Your task to perform on an android device: toggle notifications settings in the gmail app Image 0: 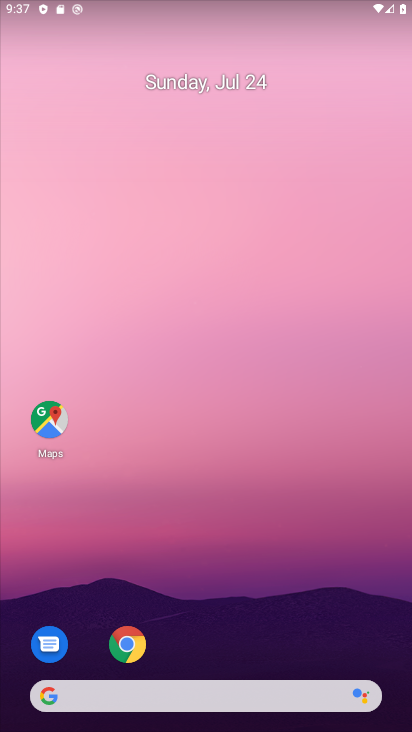
Step 0: drag from (199, 637) to (292, 48)
Your task to perform on an android device: toggle notifications settings in the gmail app Image 1: 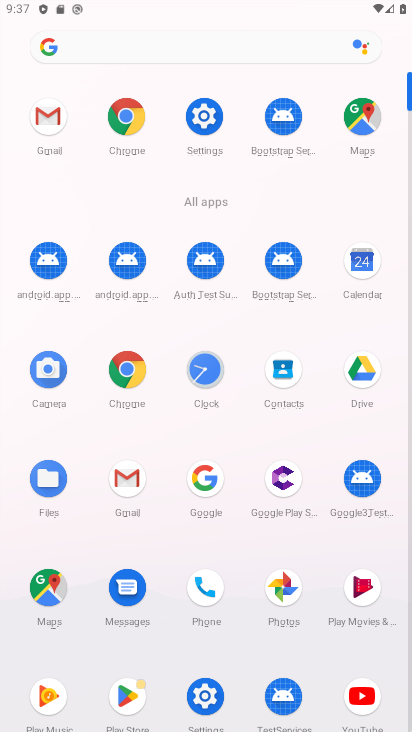
Step 1: drag from (302, 664) to (280, 626)
Your task to perform on an android device: toggle notifications settings in the gmail app Image 2: 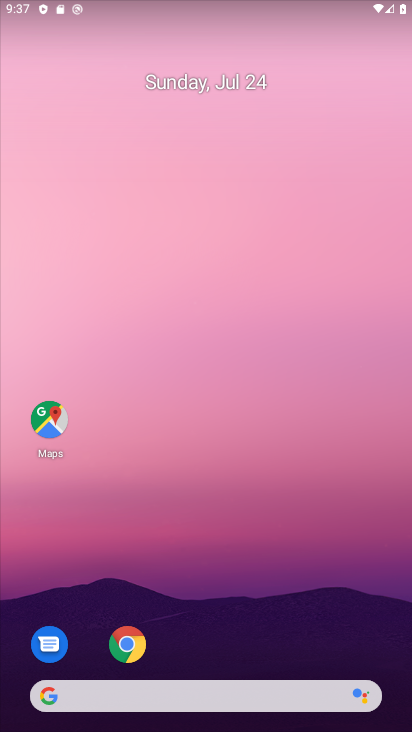
Step 2: click (49, 112)
Your task to perform on an android device: toggle notifications settings in the gmail app Image 3: 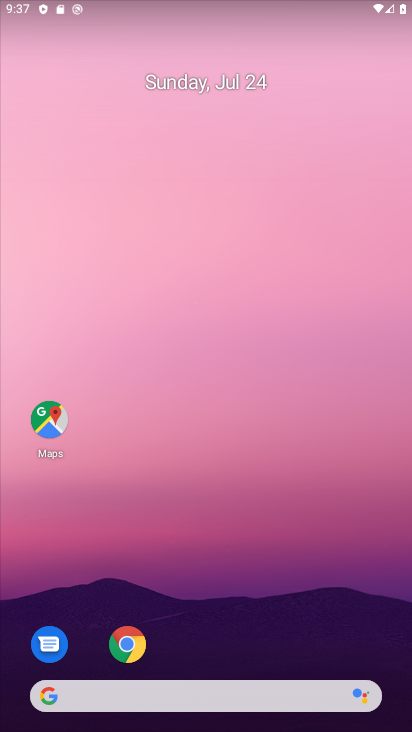
Step 3: drag from (166, 644) to (207, 5)
Your task to perform on an android device: toggle notifications settings in the gmail app Image 4: 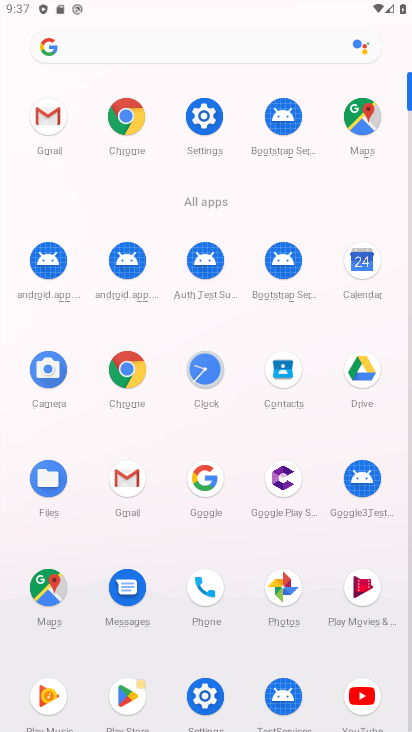
Step 4: click (51, 133)
Your task to perform on an android device: toggle notifications settings in the gmail app Image 5: 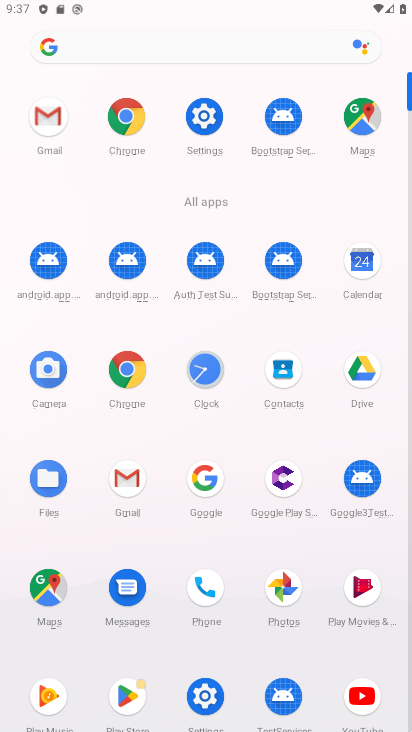
Step 5: click (51, 133)
Your task to perform on an android device: toggle notifications settings in the gmail app Image 6: 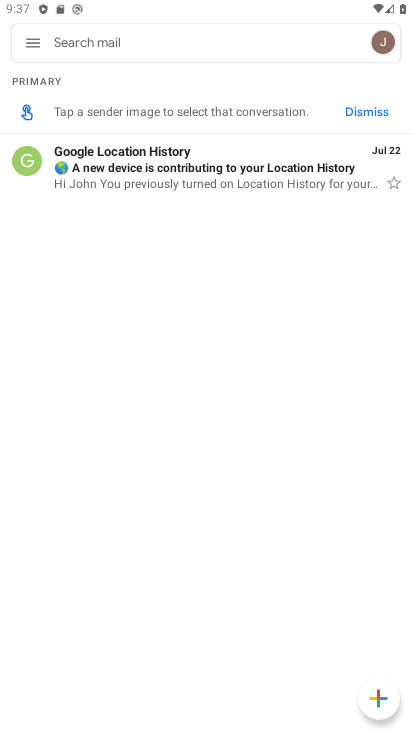
Step 6: click (33, 45)
Your task to perform on an android device: toggle notifications settings in the gmail app Image 7: 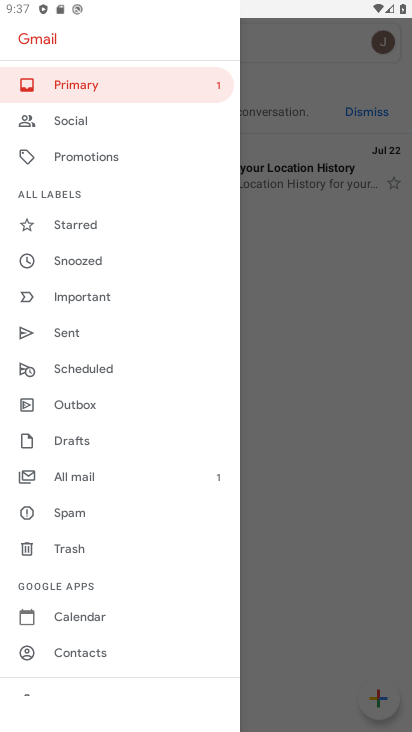
Step 7: drag from (66, 620) to (121, 89)
Your task to perform on an android device: toggle notifications settings in the gmail app Image 8: 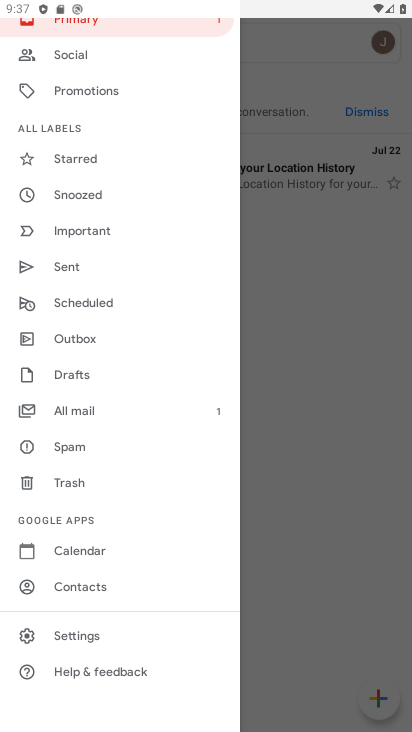
Step 8: click (89, 626)
Your task to perform on an android device: toggle notifications settings in the gmail app Image 9: 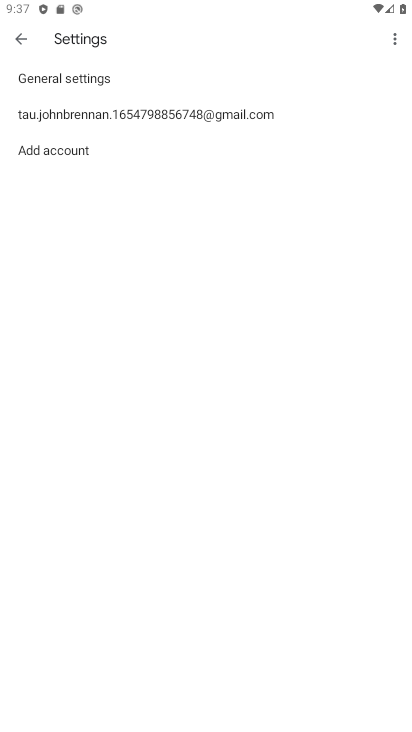
Step 9: click (140, 113)
Your task to perform on an android device: toggle notifications settings in the gmail app Image 10: 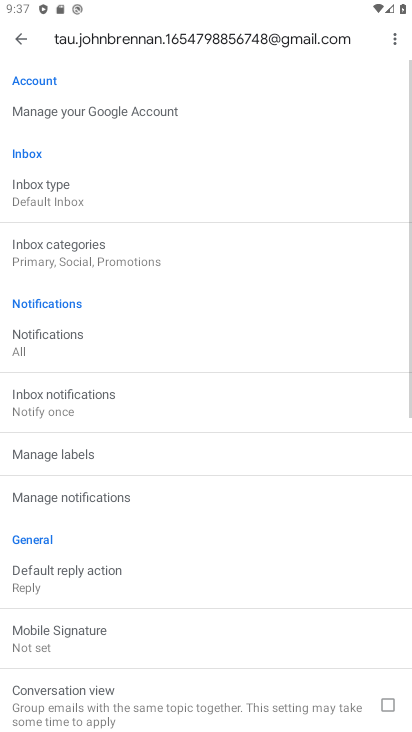
Step 10: click (56, 340)
Your task to perform on an android device: toggle notifications settings in the gmail app Image 11: 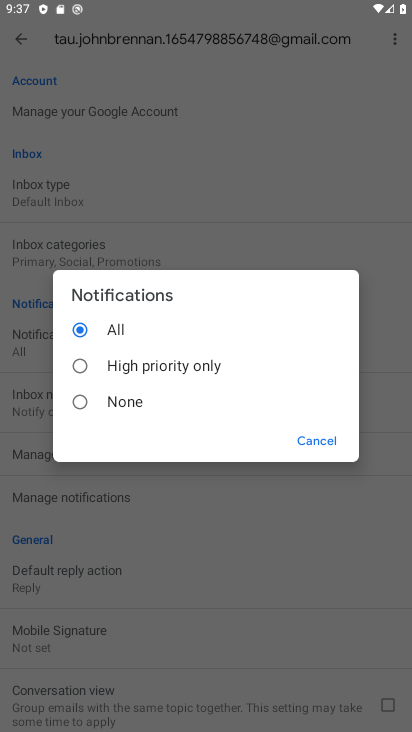
Step 11: click (119, 374)
Your task to perform on an android device: toggle notifications settings in the gmail app Image 12: 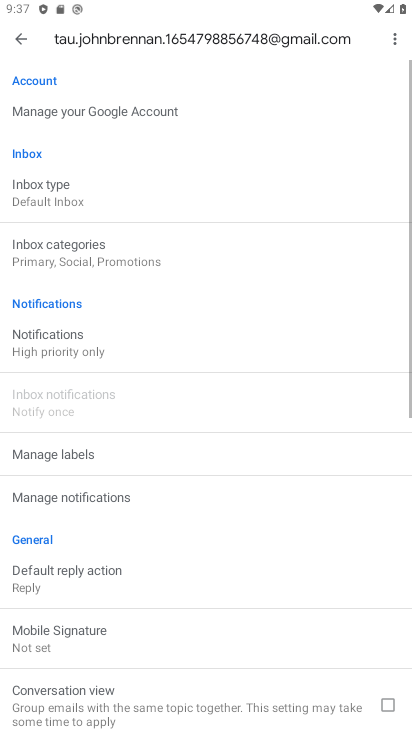
Step 12: task complete